Your task to perform on an android device: turn notification dots on Image 0: 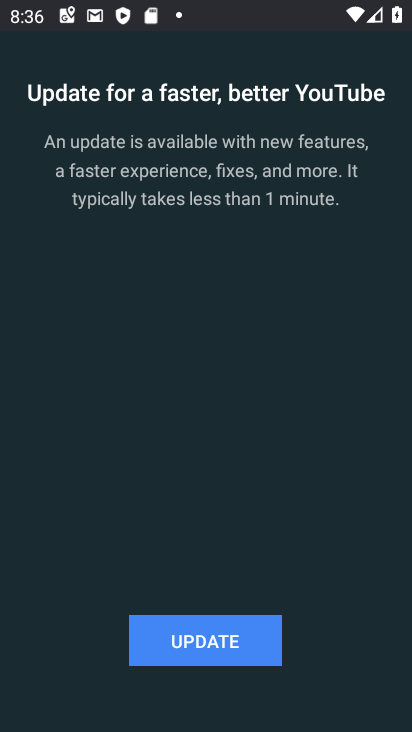
Step 0: press home button
Your task to perform on an android device: turn notification dots on Image 1: 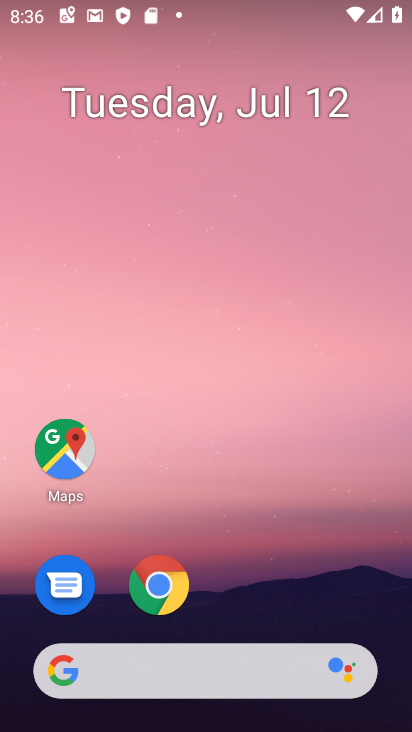
Step 1: drag from (317, 580) to (298, 12)
Your task to perform on an android device: turn notification dots on Image 2: 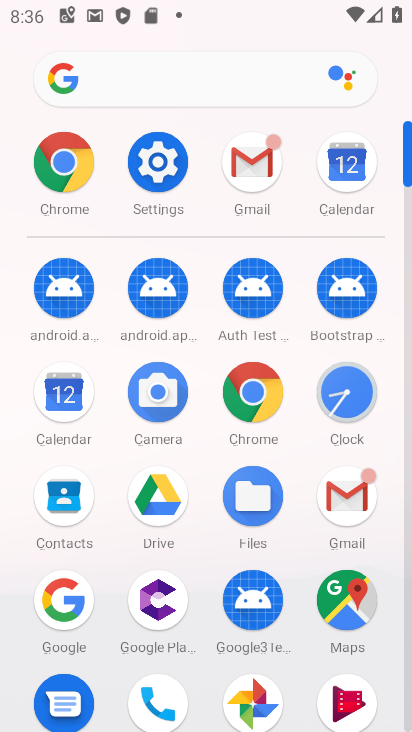
Step 2: click (168, 169)
Your task to perform on an android device: turn notification dots on Image 3: 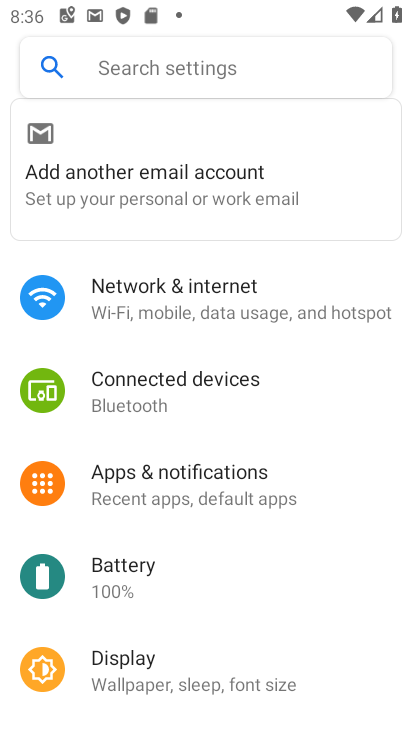
Step 3: click (185, 488)
Your task to perform on an android device: turn notification dots on Image 4: 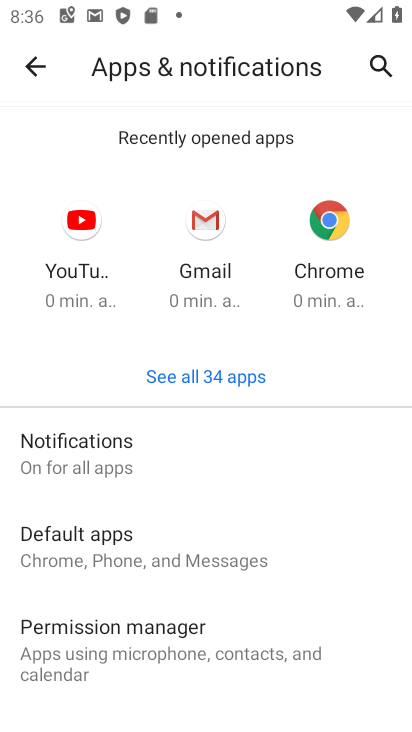
Step 4: click (113, 457)
Your task to perform on an android device: turn notification dots on Image 5: 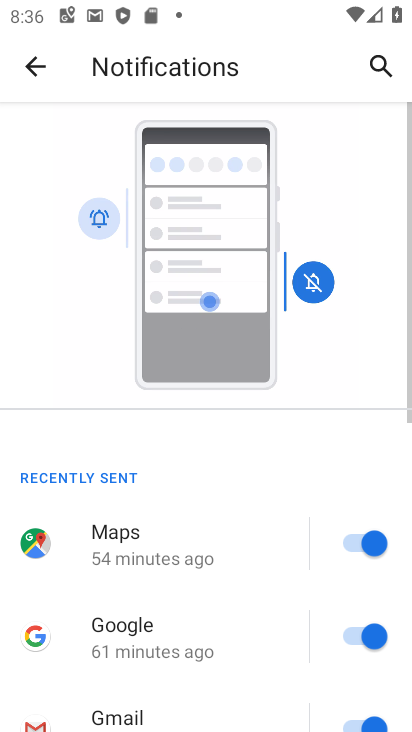
Step 5: drag from (232, 500) to (309, 73)
Your task to perform on an android device: turn notification dots on Image 6: 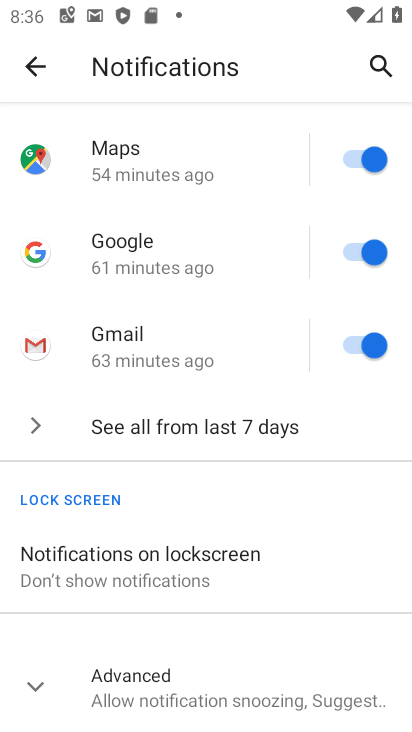
Step 6: drag from (197, 451) to (217, 122)
Your task to perform on an android device: turn notification dots on Image 7: 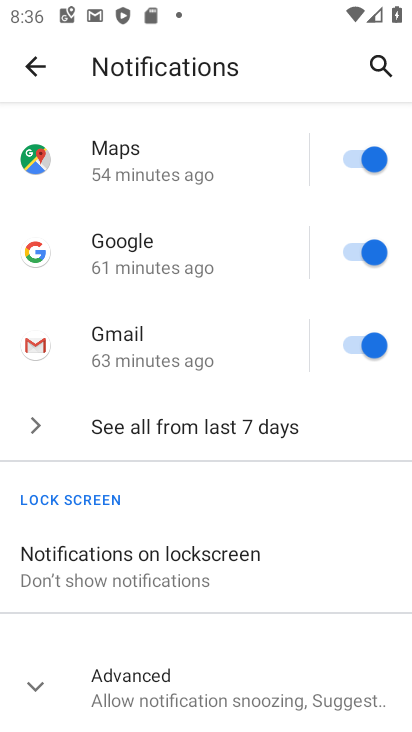
Step 7: click (36, 685)
Your task to perform on an android device: turn notification dots on Image 8: 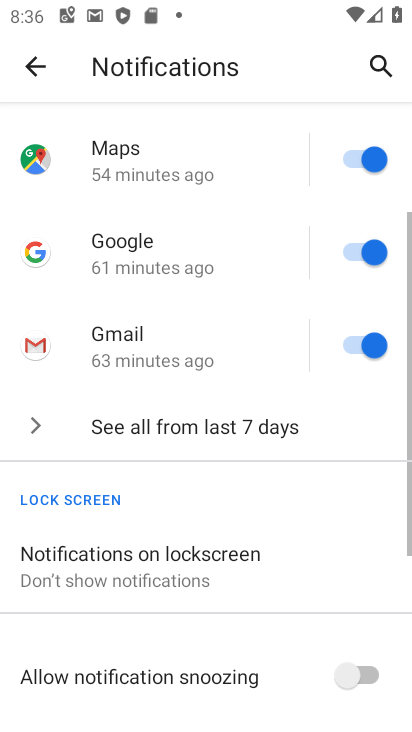
Step 8: task complete